Your task to perform on an android device: see creations saved in the google photos Image 0: 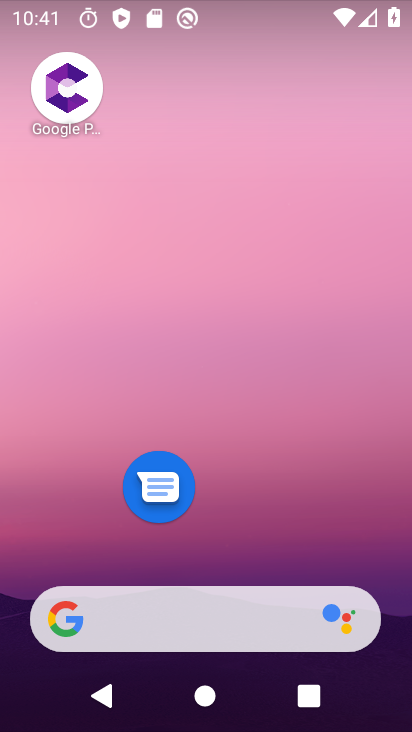
Step 0: click (290, 154)
Your task to perform on an android device: see creations saved in the google photos Image 1: 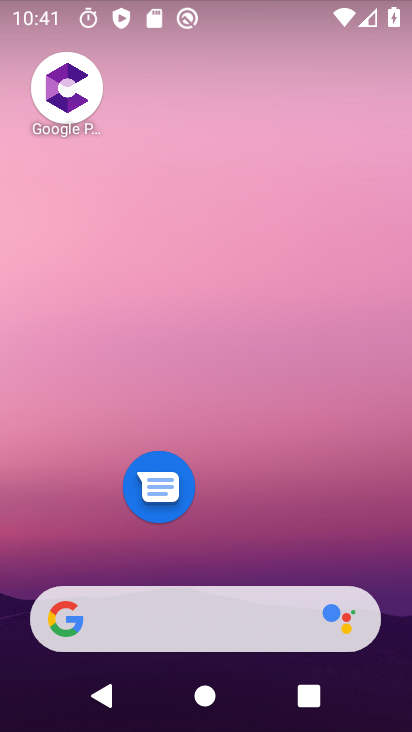
Step 1: drag from (222, 480) to (225, 96)
Your task to perform on an android device: see creations saved in the google photos Image 2: 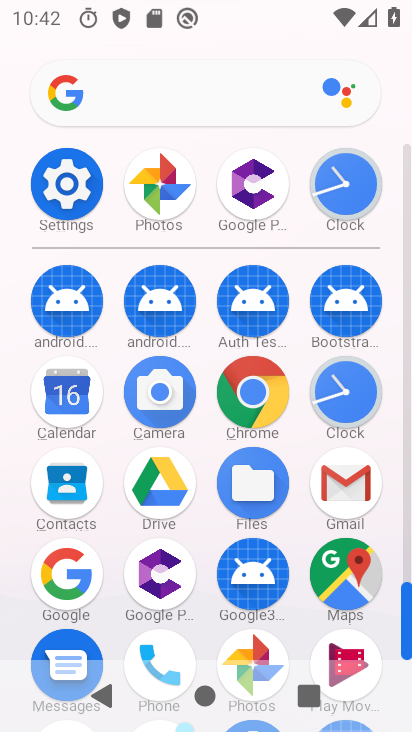
Step 2: click (264, 652)
Your task to perform on an android device: see creations saved in the google photos Image 3: 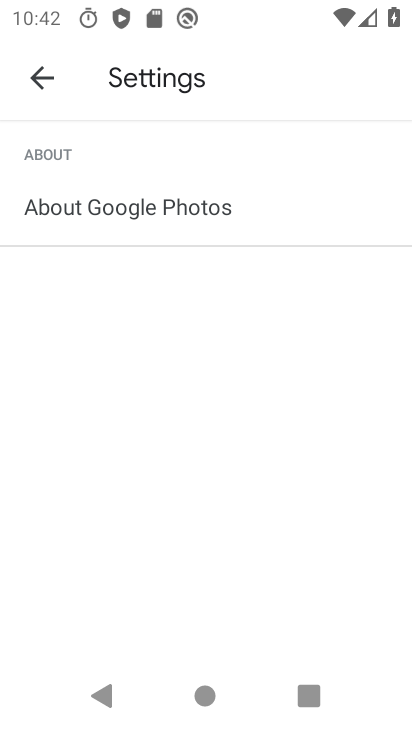
Step 3: click (37, 78)
Your task to perform on an android device: see creations saved in the google photos Image 4: 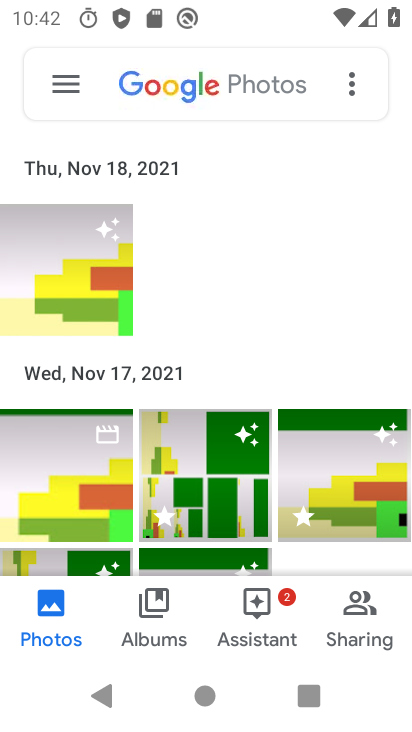
Step 4: click (212, 87)
Your task to perform on an android device: see creations saved in the google photos Image 5: 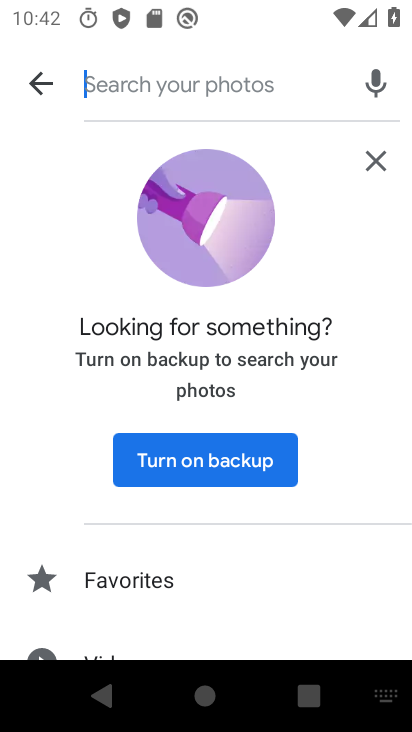
Step 5: drag from (162, 606) to (181, 291)
Your task to perform on an android device: see creations saved in the google photos Image 6: 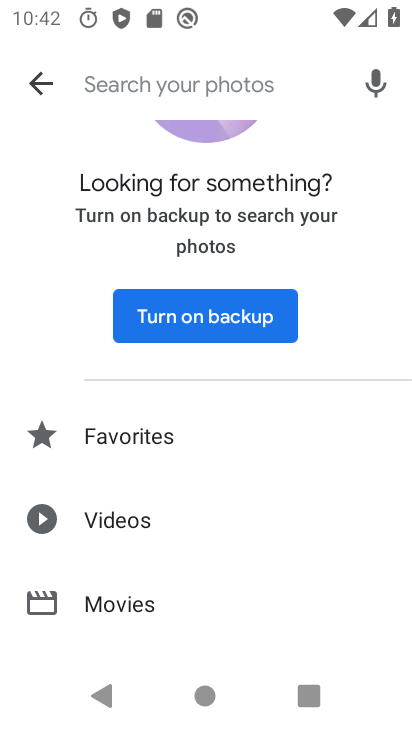
Step 6: click (183, 306)
Your task to perform on an android device: see creations saved in the google photos Image 7: 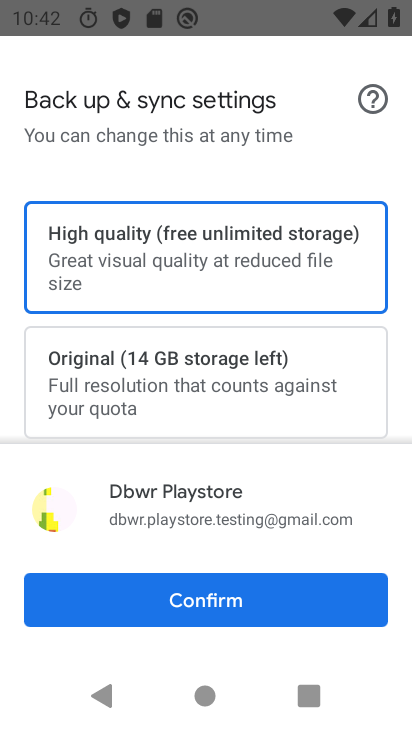
Step 7: press back button
Your task to perform on an android device: see creations saved in the google photos Image 8: 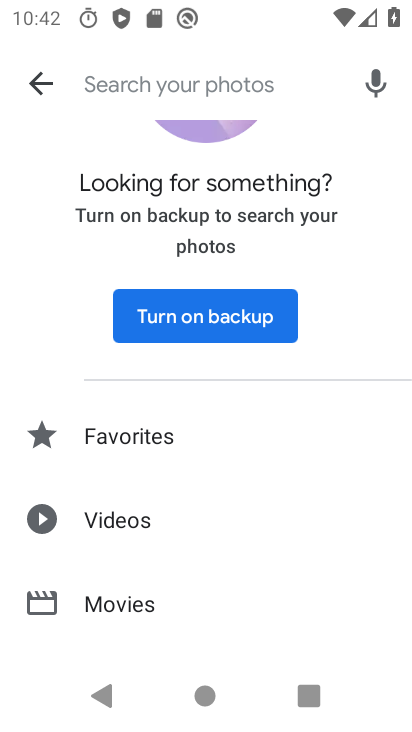
Step 8: click (44, 79)
Your task to perform on an android device: see creations saved in the google photos Image 9: 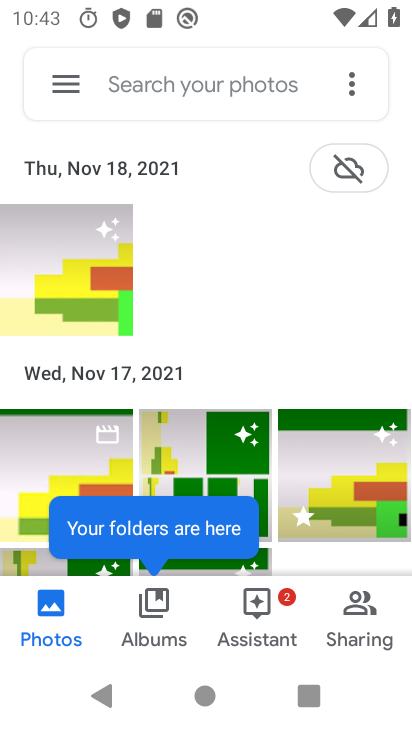
Step 9: click (188, 89)
Your task to perform on an android device: see creations saved in the google photos Image 10: 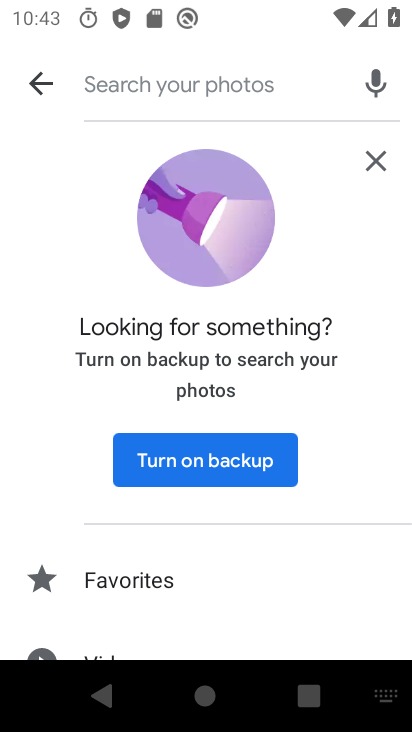
Step 10: drag from (196, 593) to (193, 326)
Your task to perform on an android device: see creations saved in the google photos Image 11: 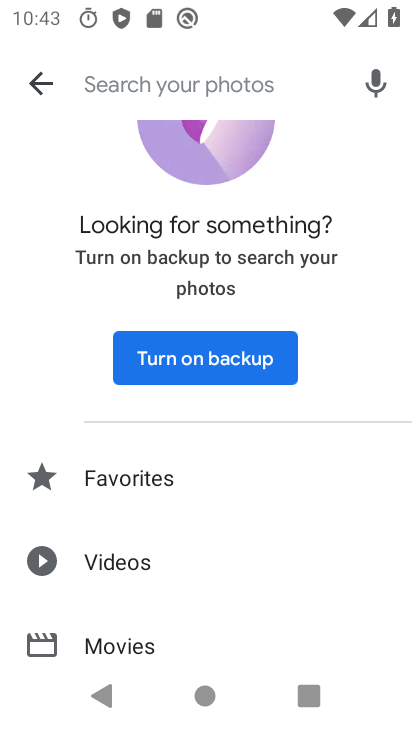
Step 11: click (32, 86)
Your task to perform on an android device: see creations saved in the google photos Image 12: 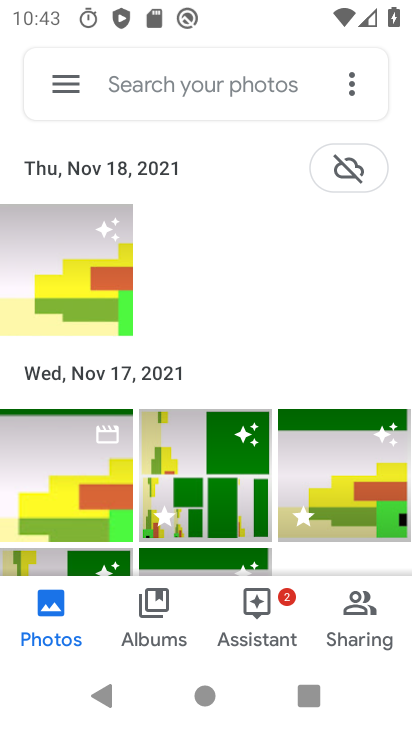
Step 12: click (155, 632)
Your task to perform on an android device: see creations saved in the google photos Image 13: 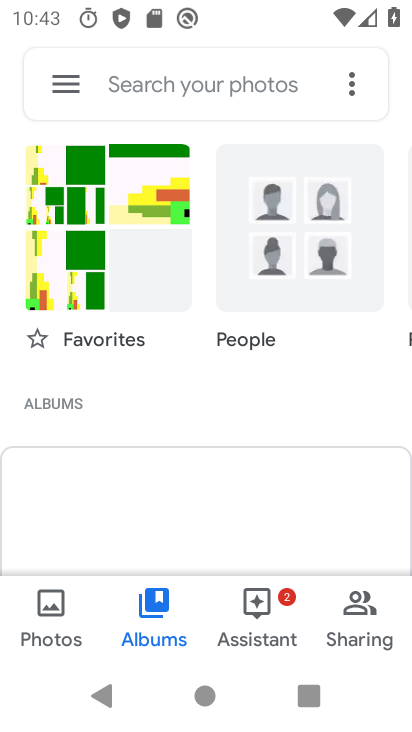
Step 13: click (184, 84)
Your task to perform on an android device: see creations saved in the google photos Image 14: 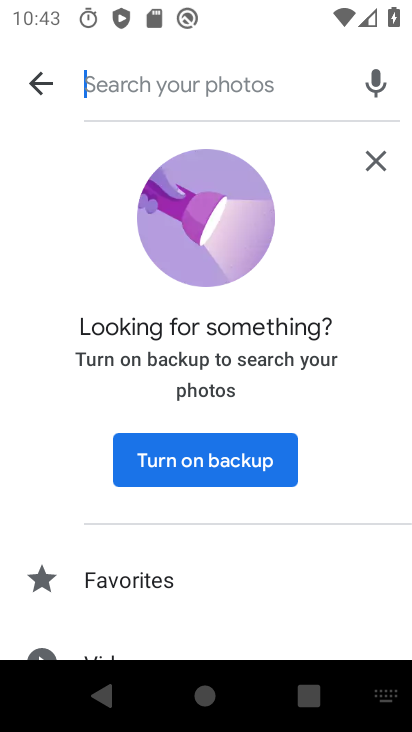
Step 14: click (372, 158)
Your task to perform on an android device: see creations saved in the google photos Image 15: 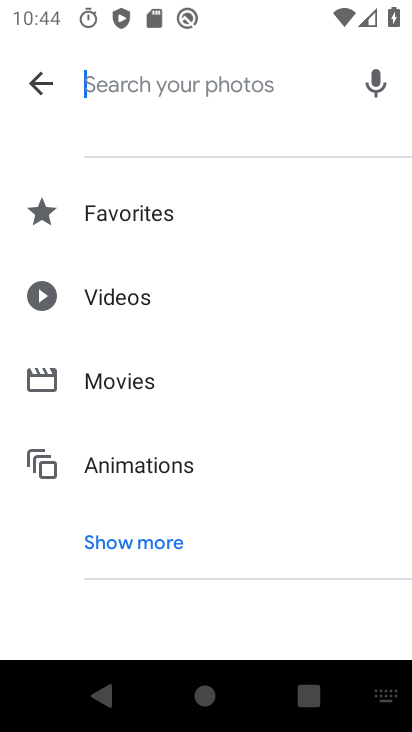
Step 15: click (127, 541)
Your task to perform on an android device: see creations saved in the google photos Image 16: 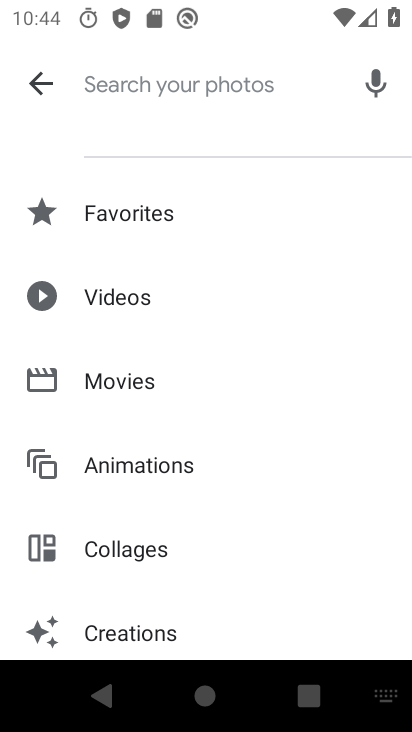
Step 16: click (133, 629)
Your task to perform on an android device: see creations saved in the google photos Image 17: 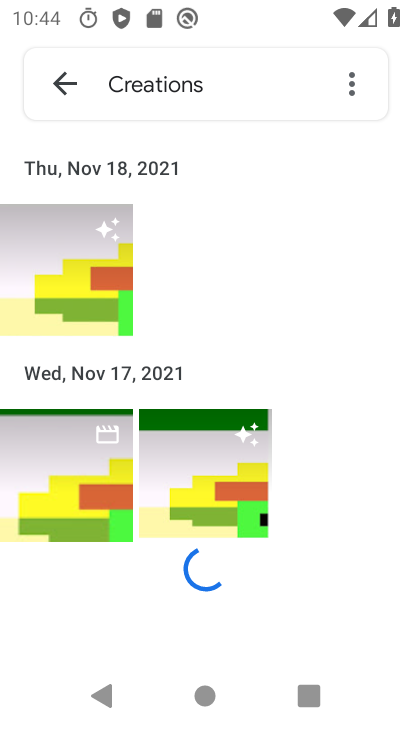
Step 17: task complete